Your task to perform on an android device: Open the stopwatch Image 0: 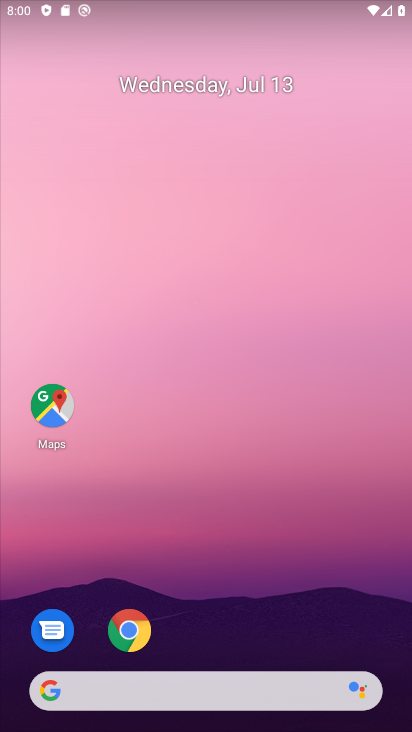
Step 0: drag from (183, 649) to (310, 74)
Your task to perform on an android device: Open the stopwatch Image 1: 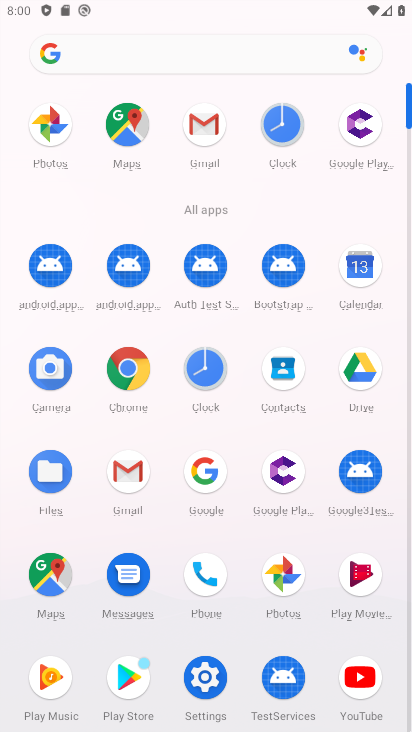
Step 1: click (204, 356)
Your task to perform on an android device: Open the stopwatch Image 2: 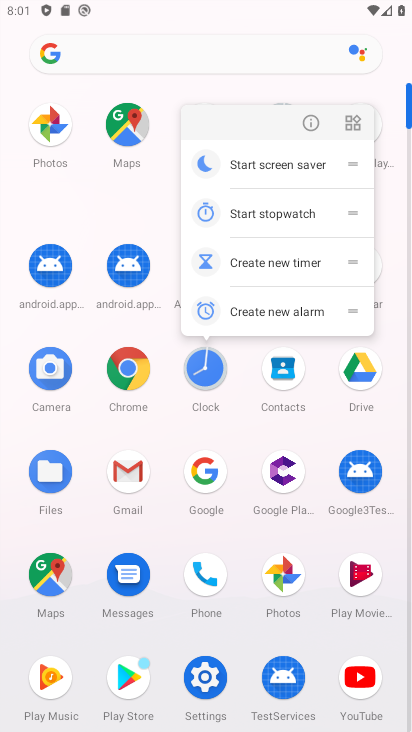
Step 2: click (316, 119)
Your task to perform on an android device: Open the stopwatch Image 3: 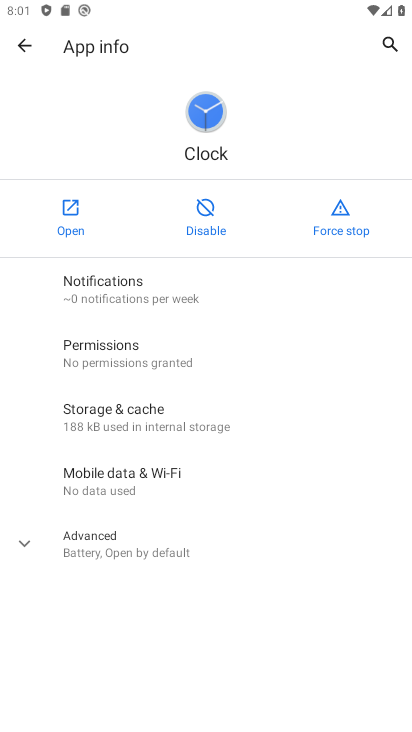
Step 3: click (69, 214)
Your task to perform on an android device: Open the stopwatch Image 4: 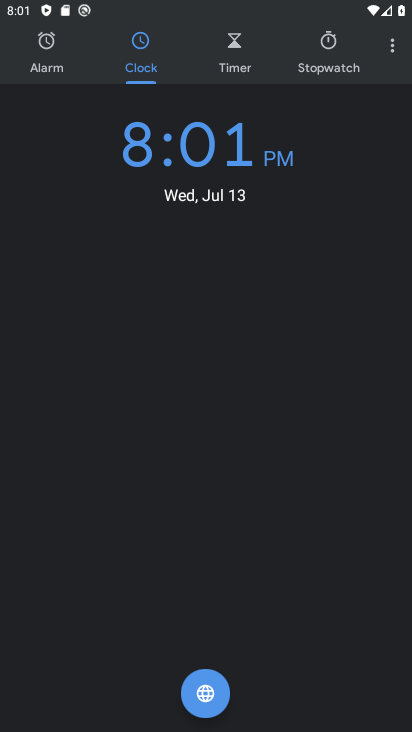
Step 4: click (258, 295)
Your task to perform on an android device: Open the stopwatch Image 5: 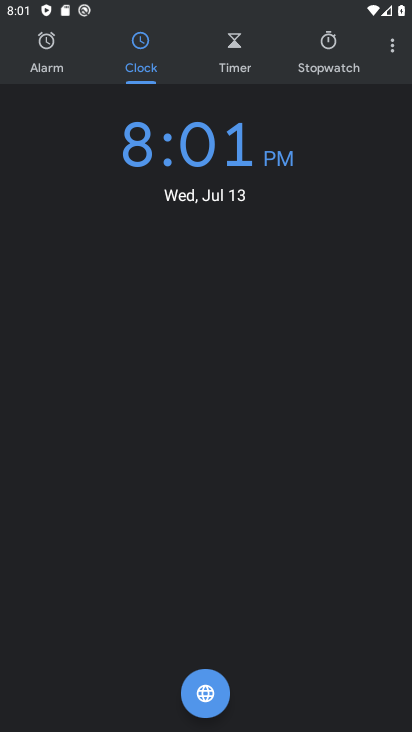
Step 5: click (333, 57)
Your task to perform on an android device: Open the stopwatch Image 6: 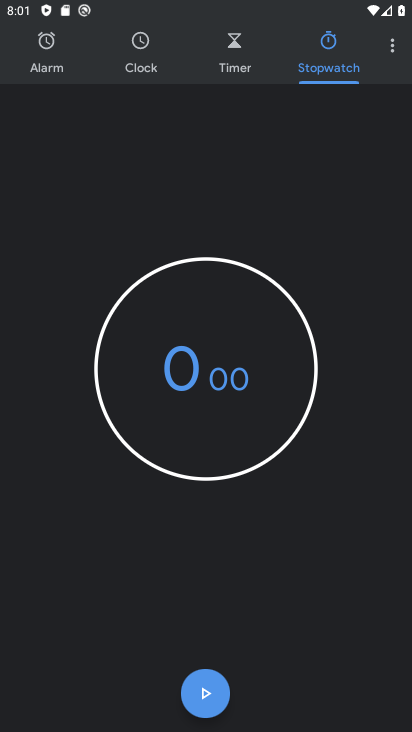
Step 6: click (325, 392)
Your task to perform on an android device: Open the stopwatch Image 7: 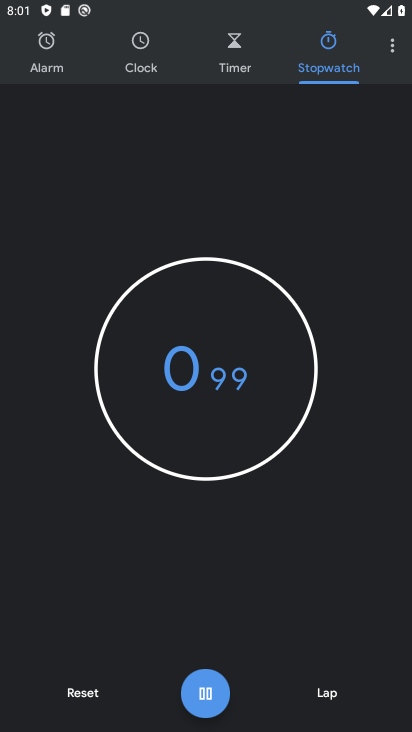
Step 7: click (199, 693)
Your task to perform on an android device: Open the stopwatch Image 8: 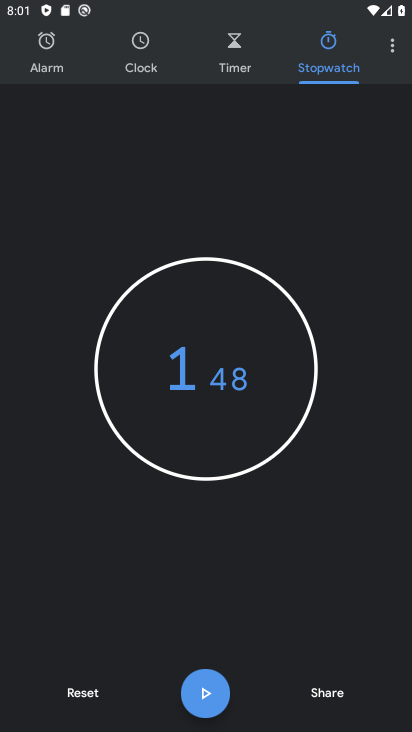
Step 8: click (218, 690)
Your task to perform on an android device: Open the stopwatch Image 9: 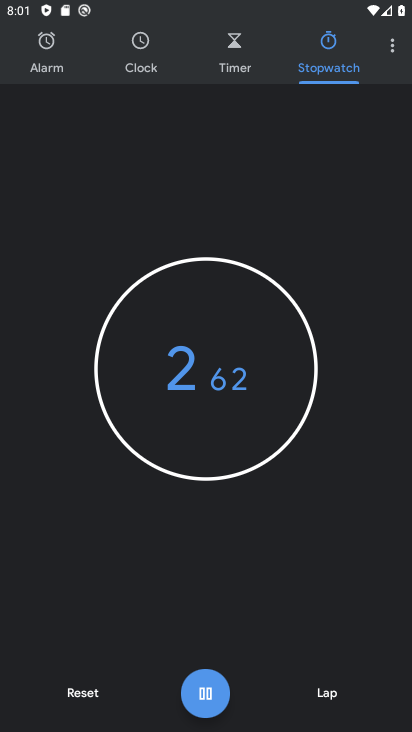
Step 9: task complete